Your task to perform on an android device: uninstall "Messages" Image 0: 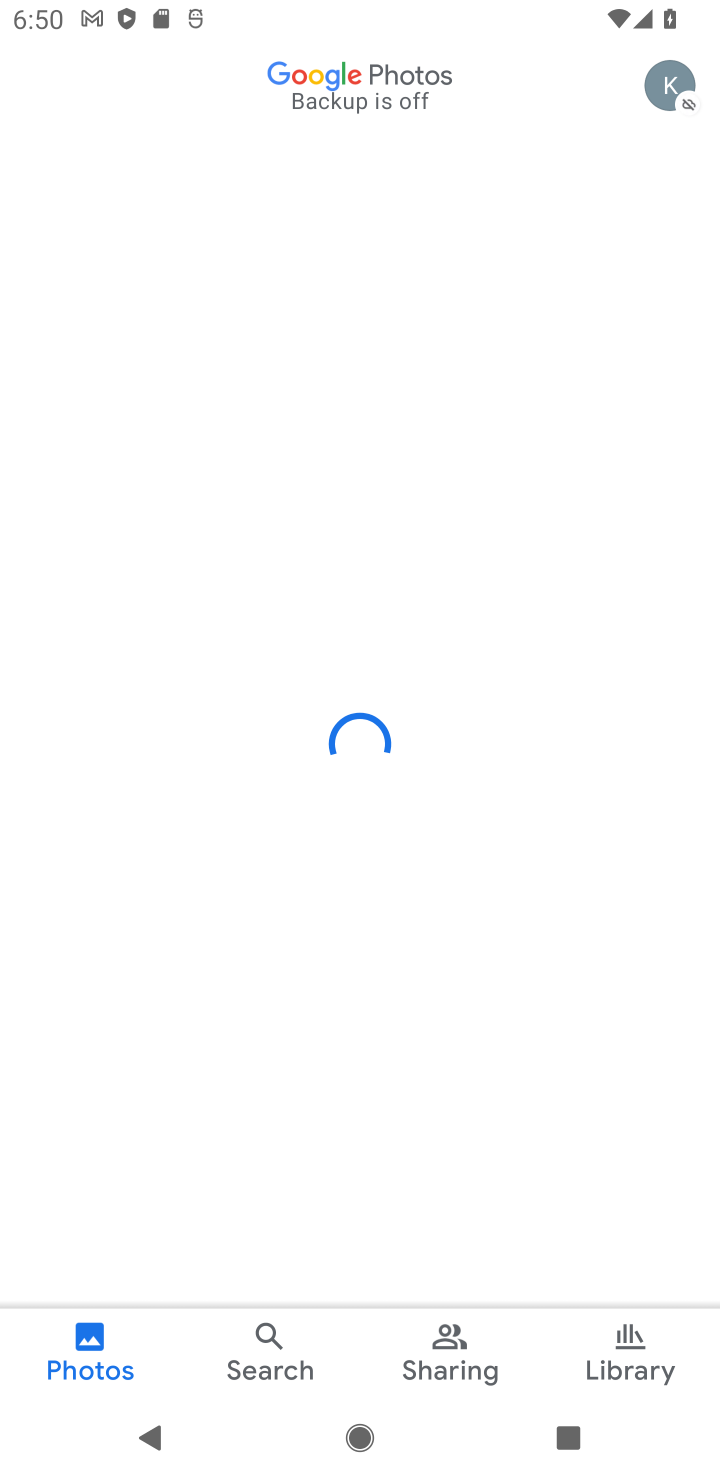
Step 0: press home button
Your task to perform on an android device: uninstall "Messages" Image 1: 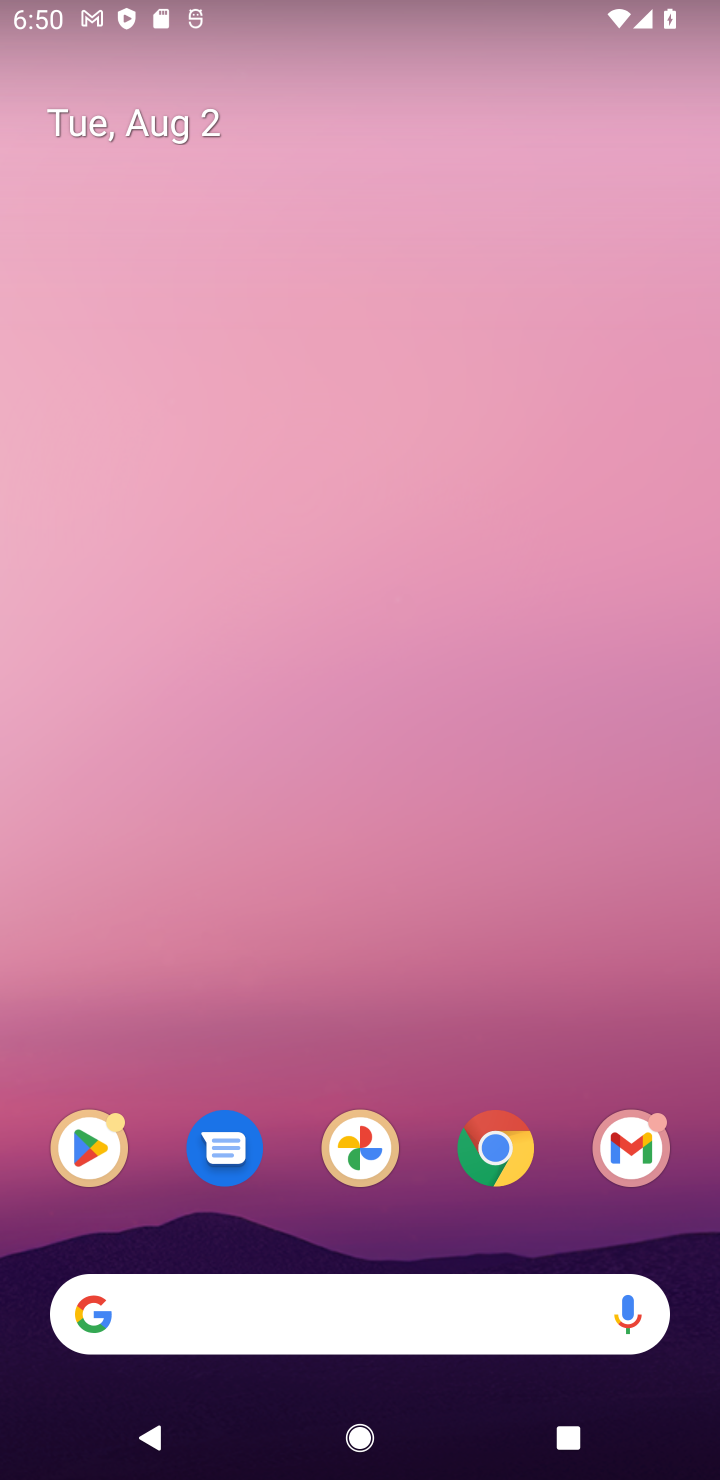
Step 1: drag from (677, 1164) to (407, 39)
Your task to perform on an android device: uninstall "Messages" Image 2: 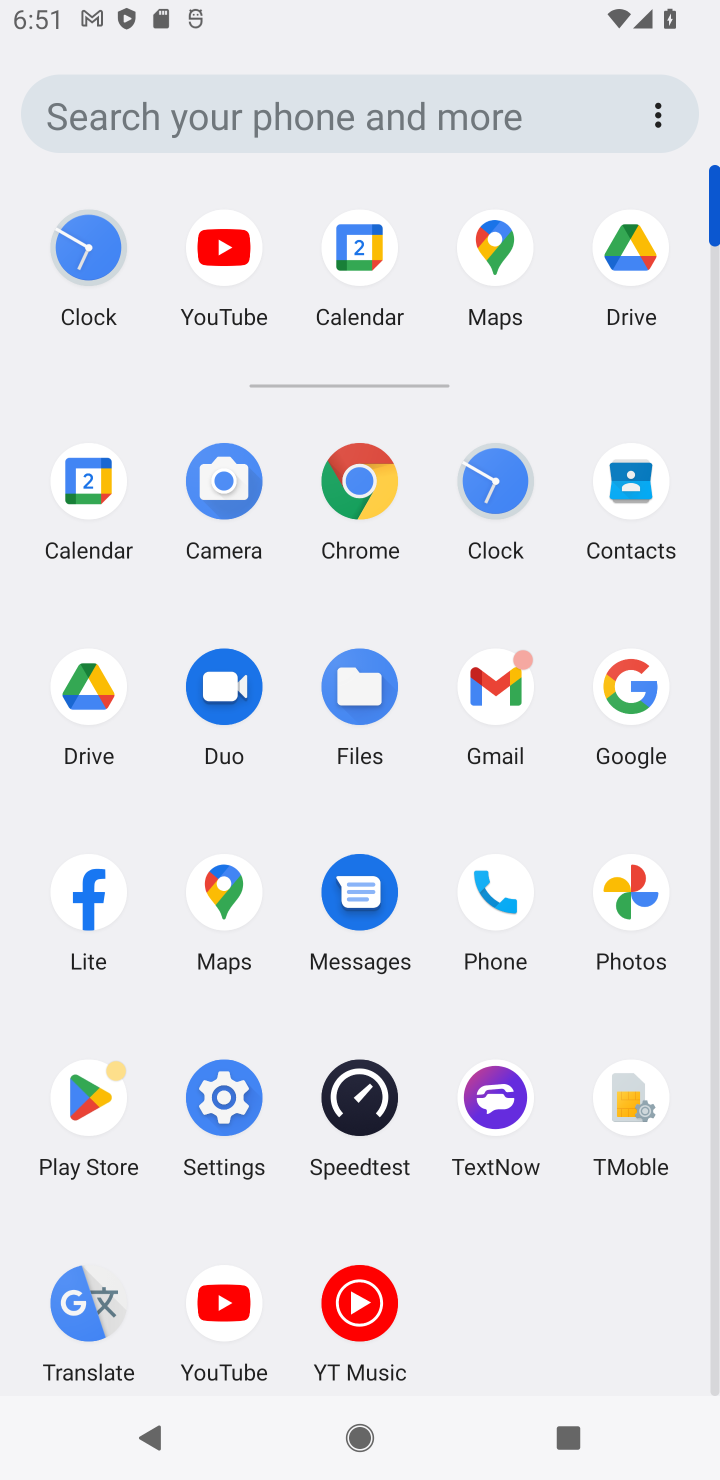
Step 2: click (84, 1103)
Your task to perform on an android device: uninstall "Messages" Image 3: 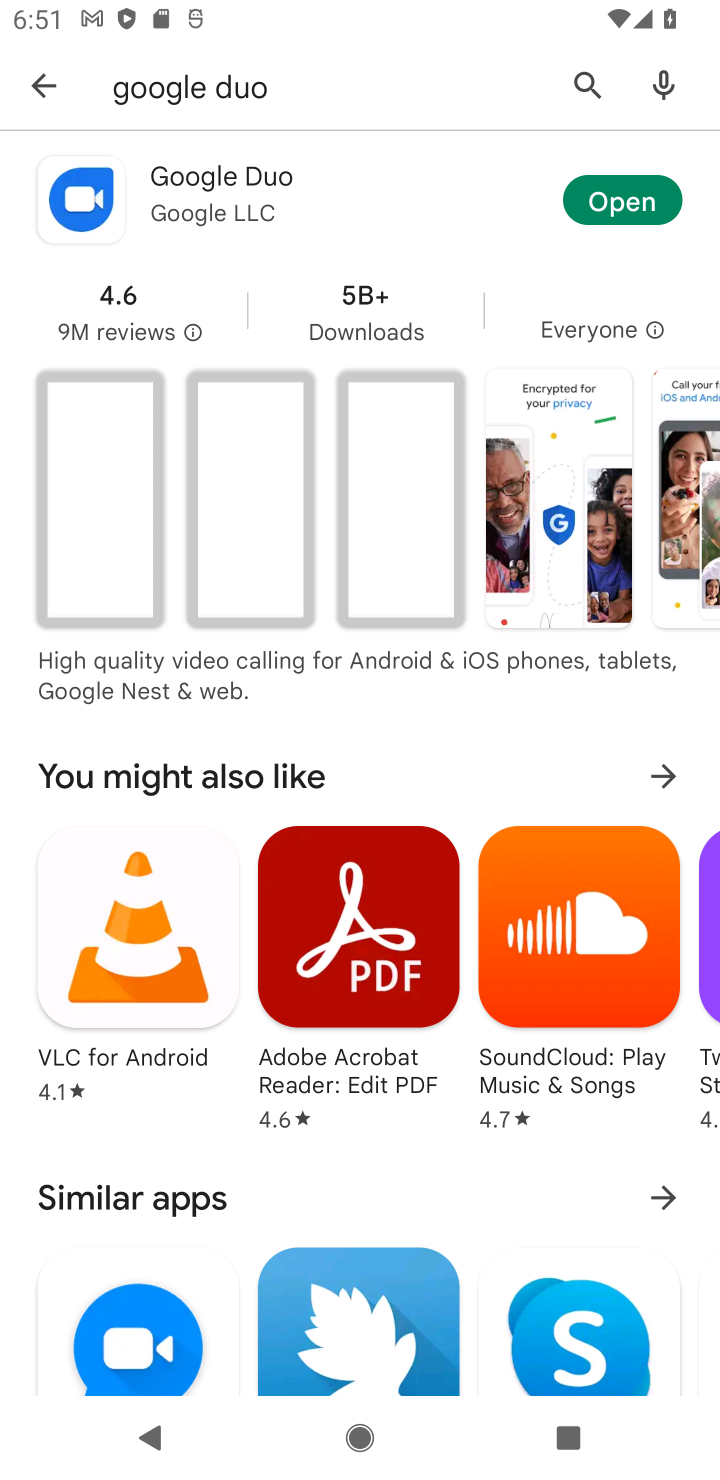
Step 3: press back button
Your task to perform on an android device: uninstall "Messages" Image 4: 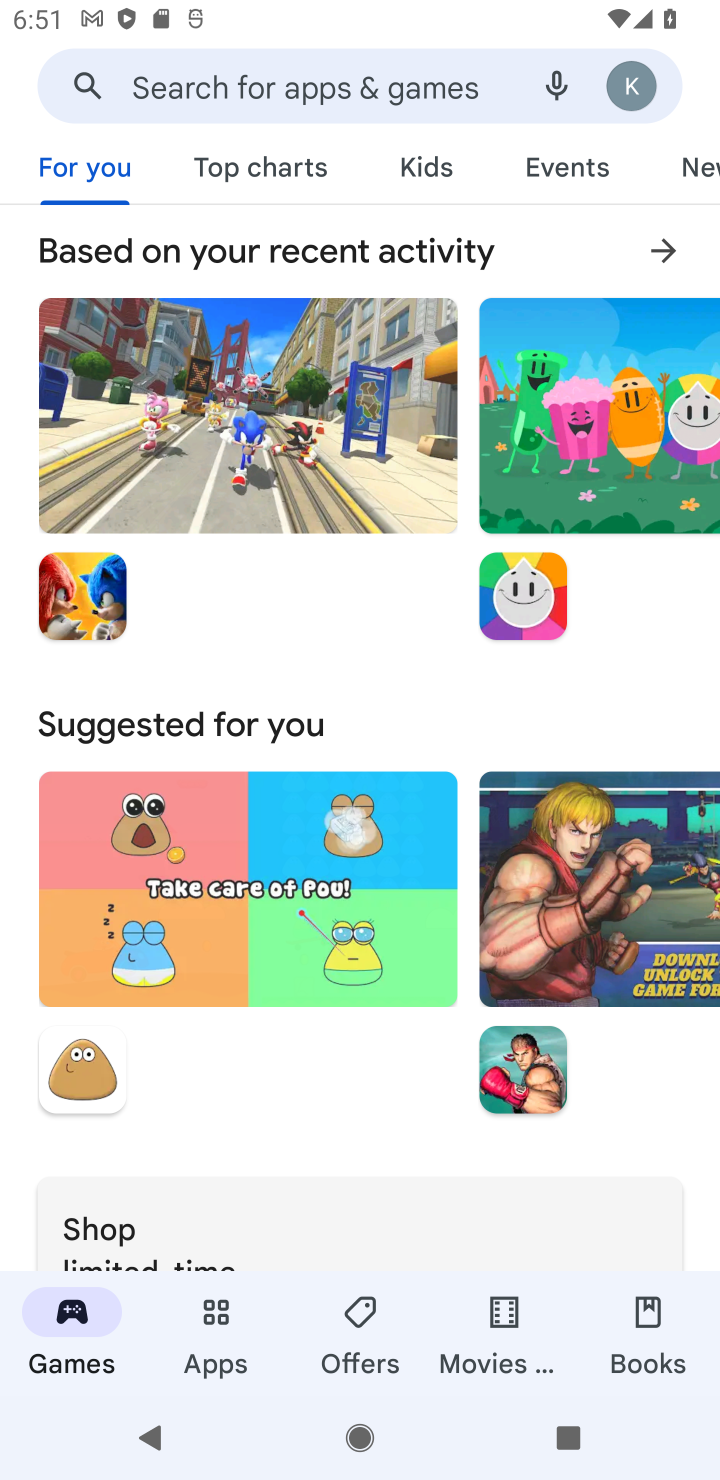
Step 4: click (224, 82)
Your task to perform on an android device: uninstall "Messages" Image 5: 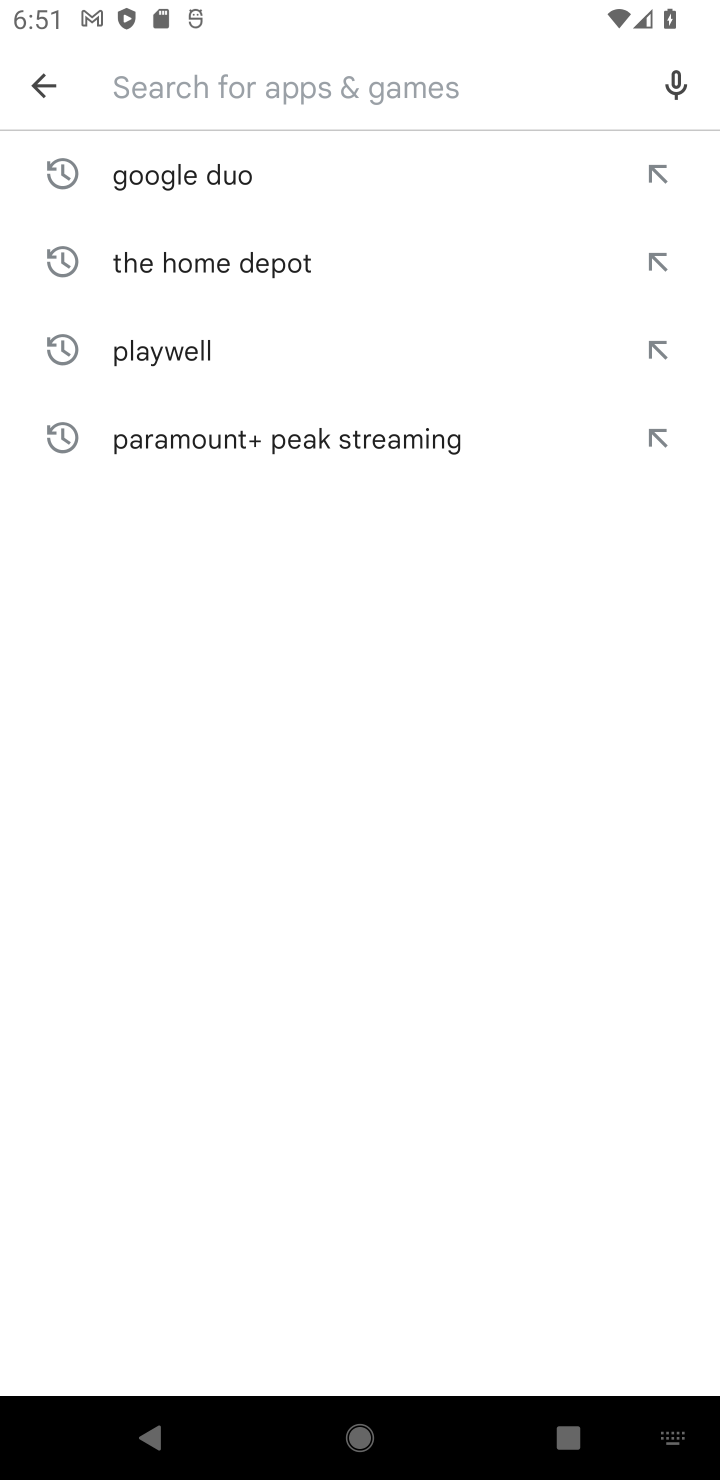
Step 5: type "Messages"
Your task to perform on an android device: uninstall "Messages" Image 6: 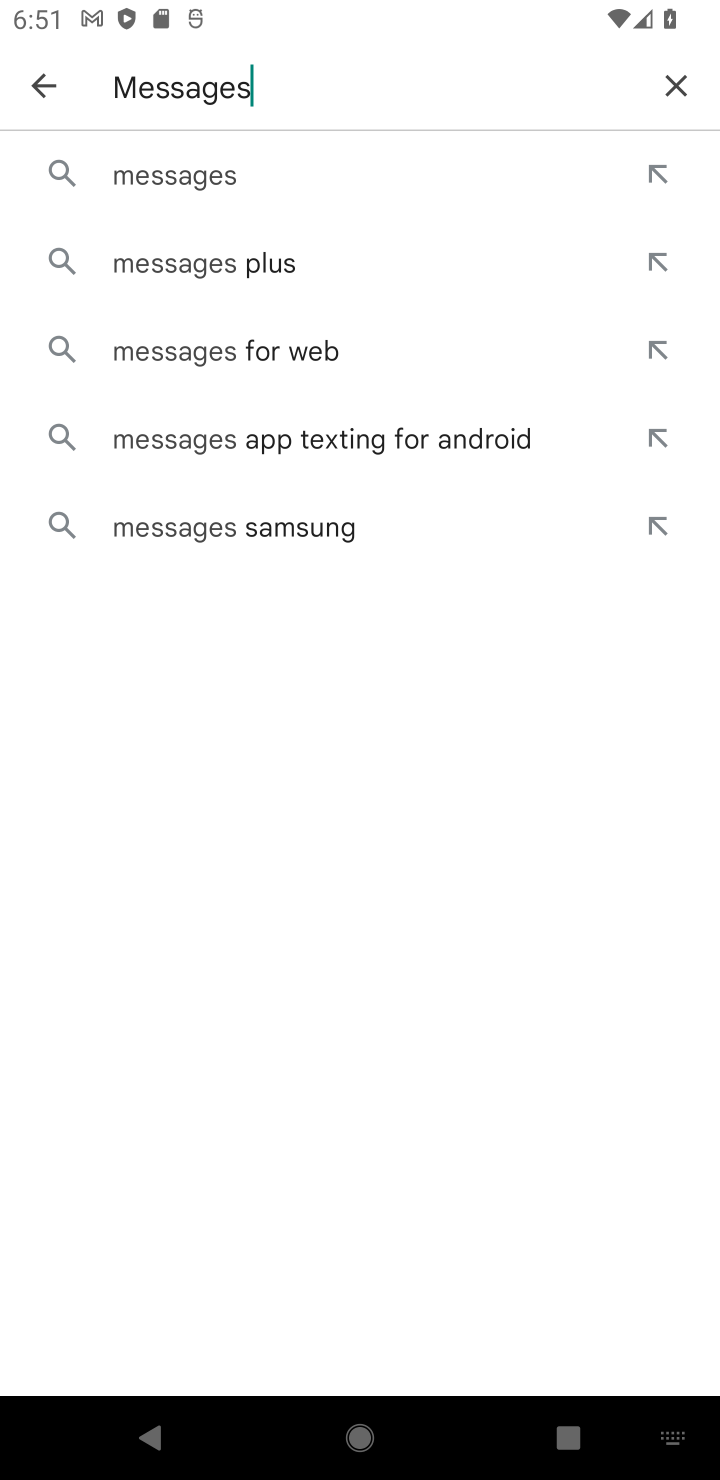
Step 6: click (259, 186)
Your task to perform on an android device: uninstall "Messages" Image 7: 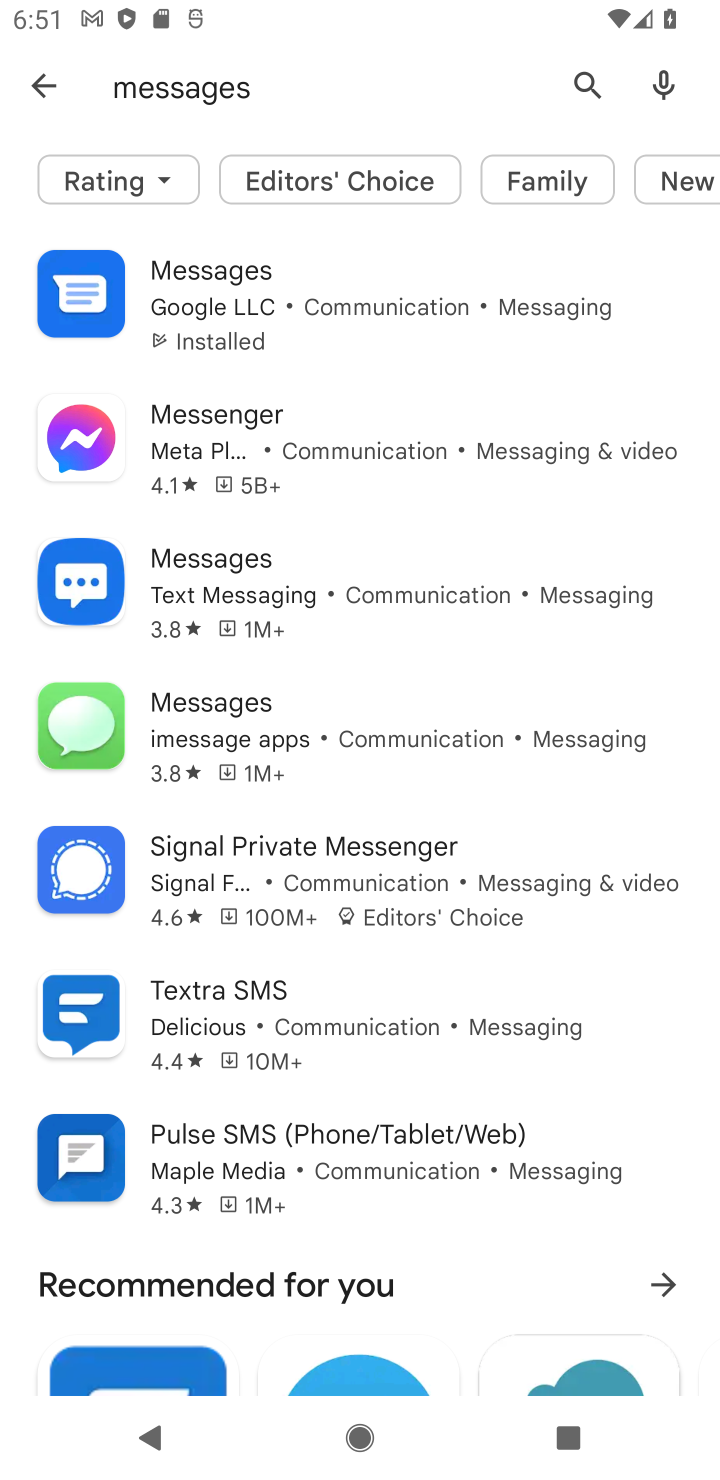
Step 7: task complete